Your task to perform on an android device: all mails in gmail Image 0: 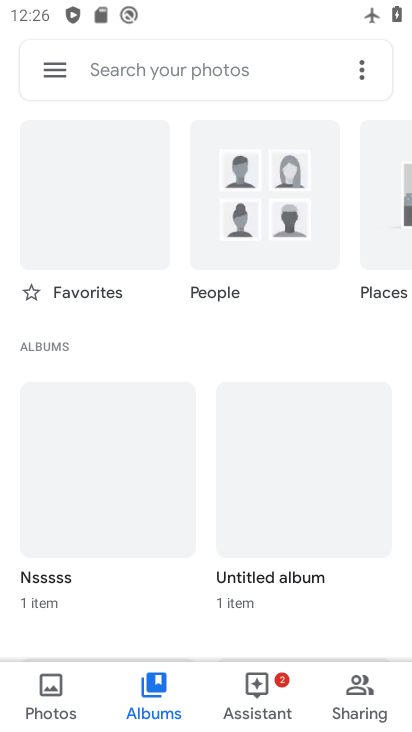
Step 0: press home button
Your task to perform on an android device: all mails in gmail Image 1: 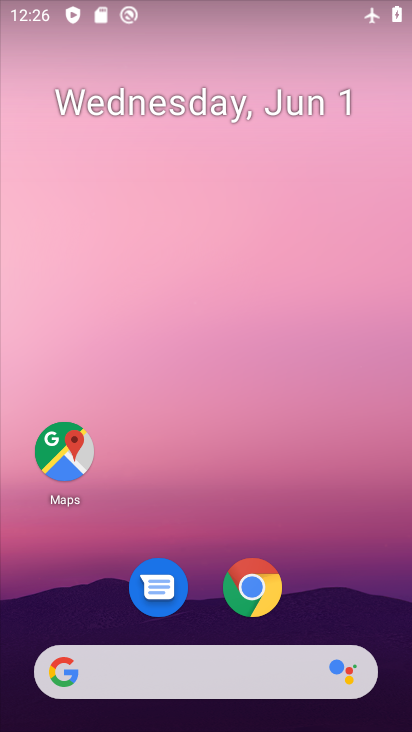
Step 1: drag from (202, 473) to (146, 74)
Your task to perform on an android device: all mails in gmail Image 2: 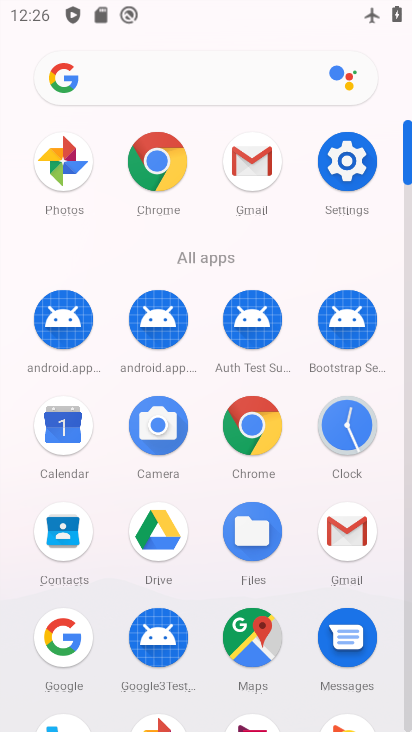
Step 2: click (247, 162)
Your task to perform on an android device: all mails in gmail Image 3: 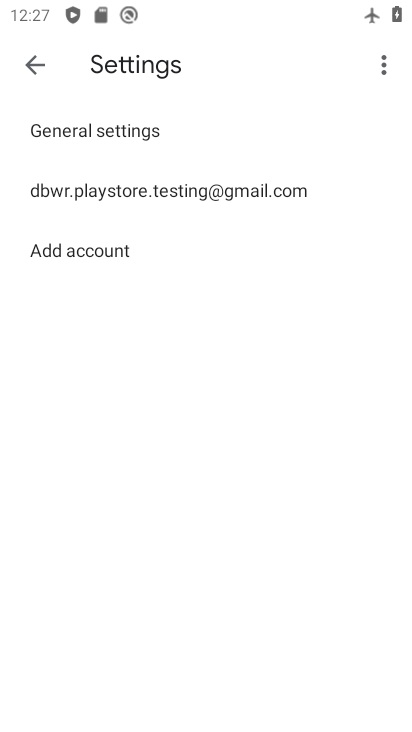
Step 3: click (43, 71)
Your task to perform on an android device: all mails in gmail Image 4: 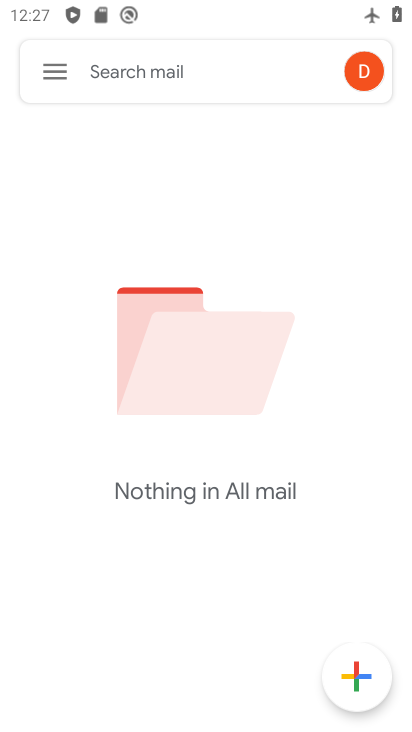
Step 4: click (43, 71)
Your task to perform on an android device: all mails in gmail Image 5: 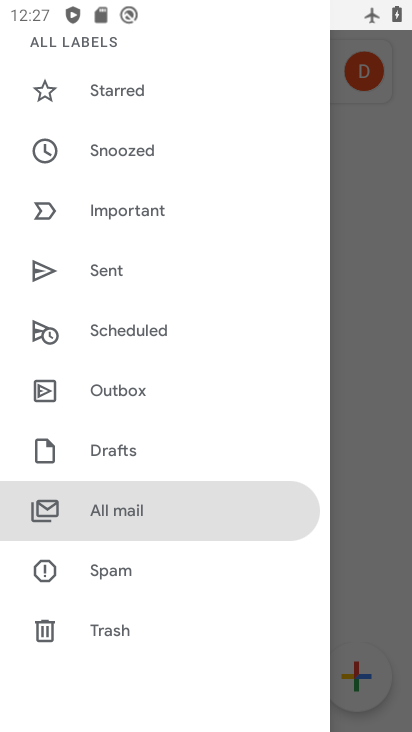
Step 5: click (119, 523)
Your task to perform on an android device: all mails in gmail Image 6: 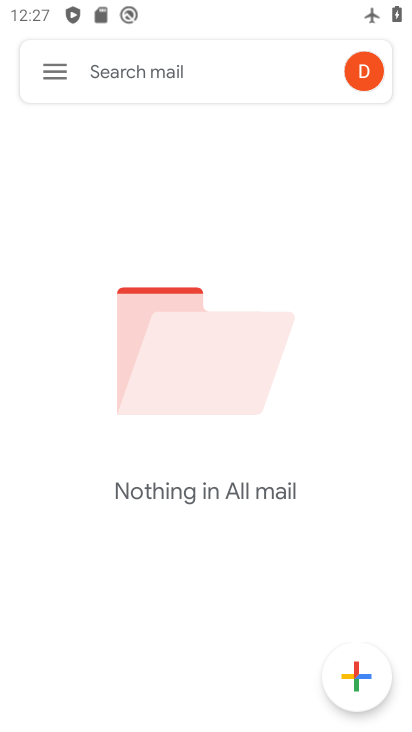
Step 6: task complete